Your task to perform on an android device: delete location history Image 0: 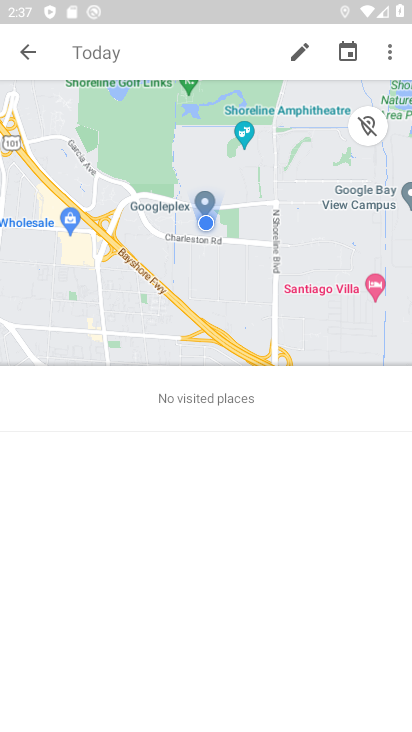
Step 0: press home button
Your task to perform on an android device: delete location history Image 1: 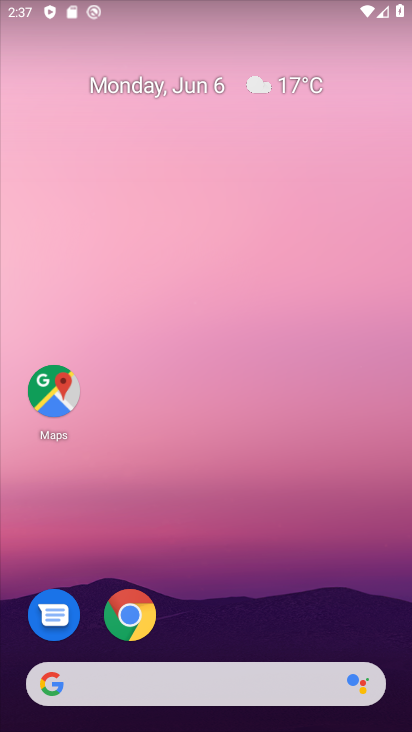
Step 1: click (68, 379)
Your task to perform on an android device: delete location history Image 2: 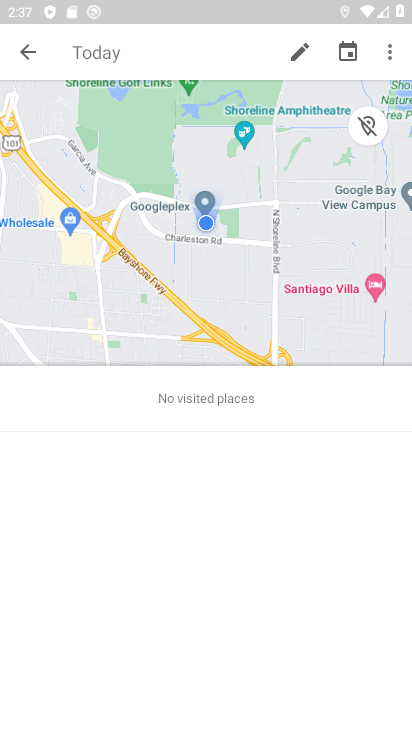
Step 2: click (394, 63)
Your task to perform on an android device: delete location history Image 3: 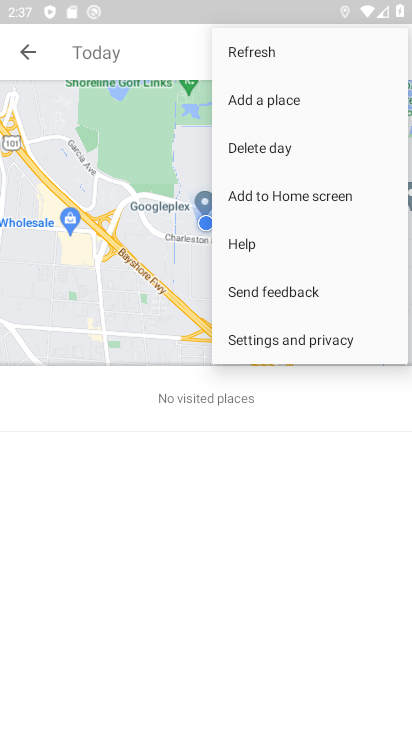
Step 3: click (341, 339)
Your task to perform on an android device: delete location history Image 4: 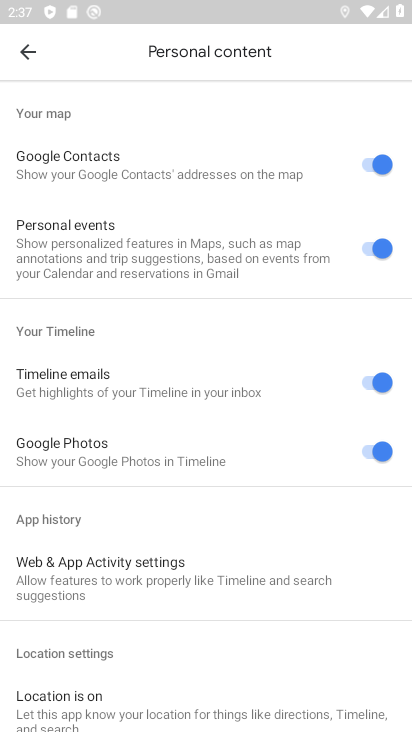
Step 4: drag from (202, 653) to (191, 194)
Your task to perform on an android device: delete location history Image 5: 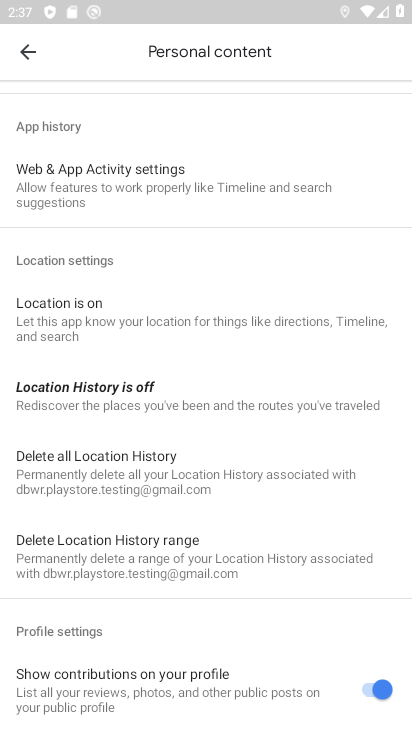
Step 5: click (243, 477)
Your task to perform on an android device: delete location history Image 6: 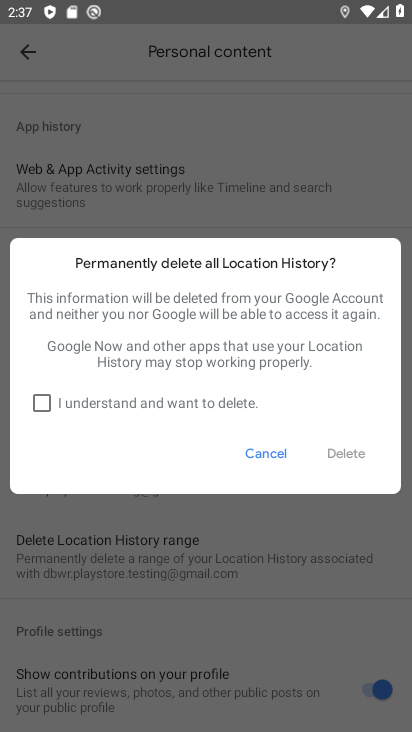
Step 6: click (194, 405)
Your task to perform on an android device: delete location history Image 7: 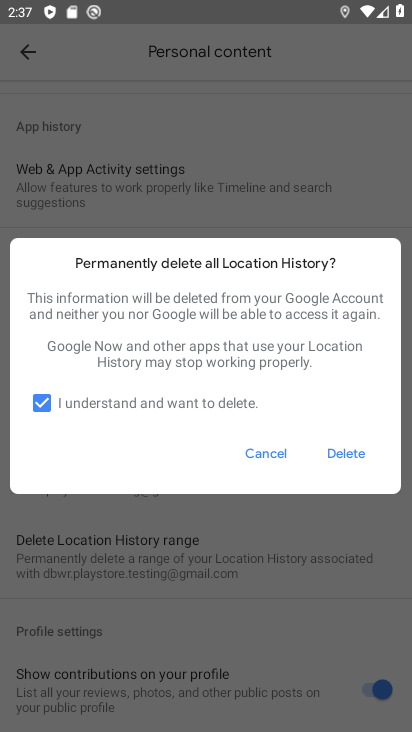
Step 7: click (355, 458)
Your task to perform on an android device: delete location history Image 8: 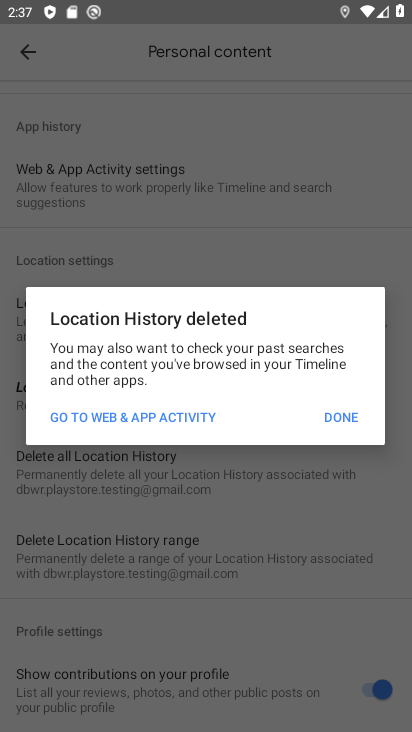
Step 8: click (353, 408)
Your task to perform on an android device: delete location history Image 9: 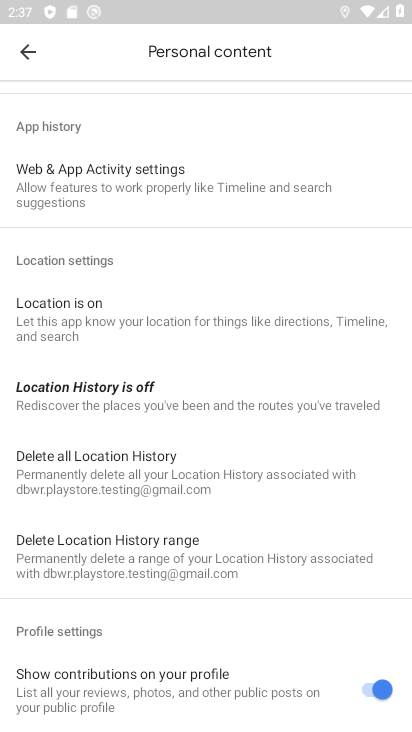
Step 9: task complete